Your task to perform on an android device: Open settings on Google Maps Image 0: 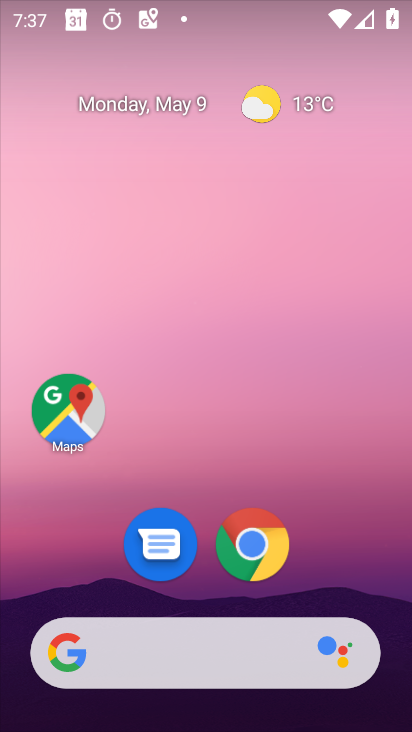
Step 0: drag from (381, 525) to (159, 12)
Your task to perform on an android device: Open settings on Google Maps Image 1: 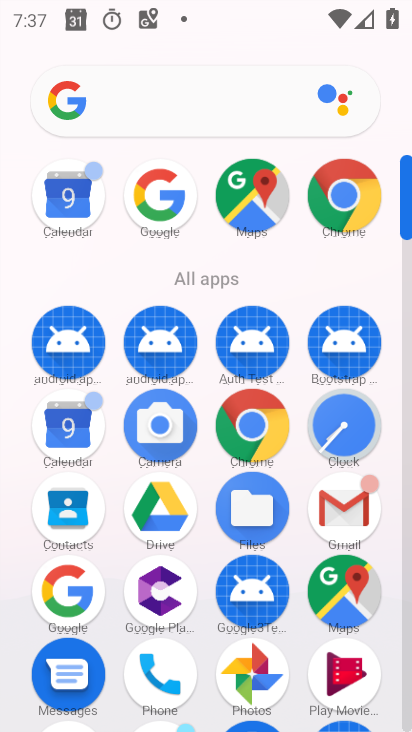
Step 1: click (50, 593)
Your task to perform on an android device: Open settings on Google Maps Image 2: 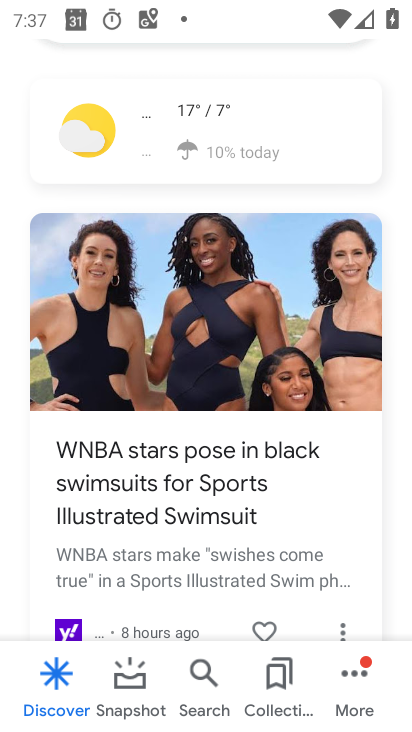
Step 2: task complete